Your task to perform on an android device: Go to eBay Image 0: 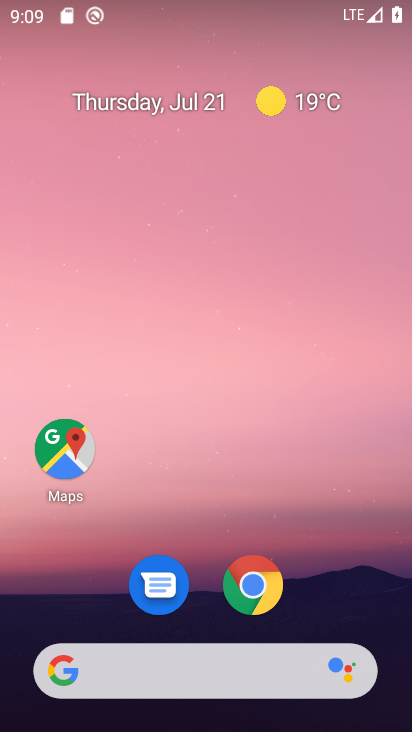
Step 0: click (185, 667)
Your task to perform on an android device: Go to eBay Image 1: 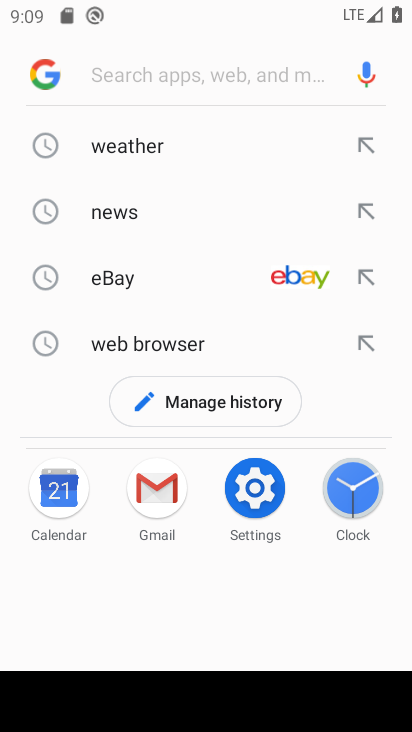
Step 1: click (311, 269)
Your task to perform on an android device: Go to eBay Image 2: 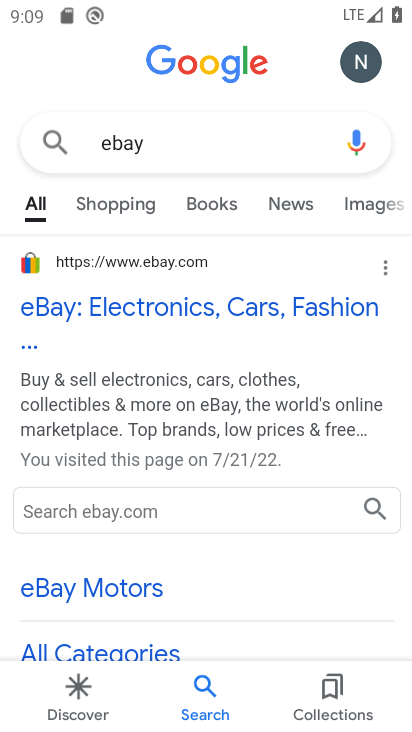
Step 2: click (65, 316)
Your task to perform on an android device: Go to eBay Image 3: 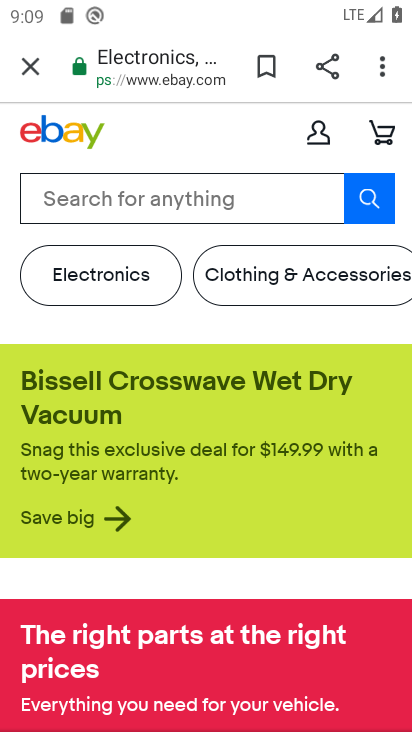
Step 3: task complete